Your task to perform on an android device: turn on airplane mode Image 0: 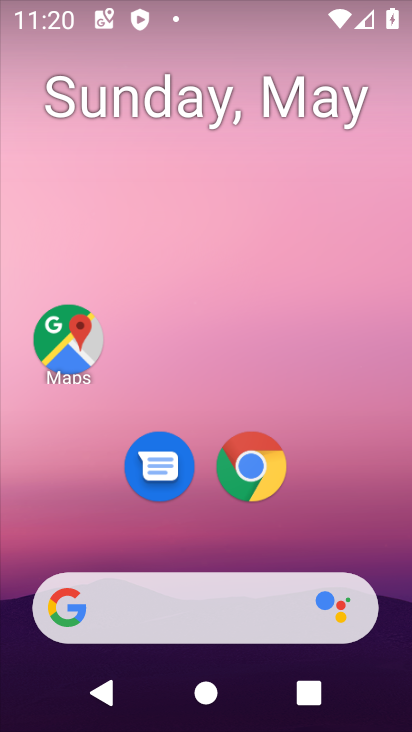
Step 0: drag from (398, 615) to (290, 34)
Your task to perform on an android device: turn on airplane mode Image 1: 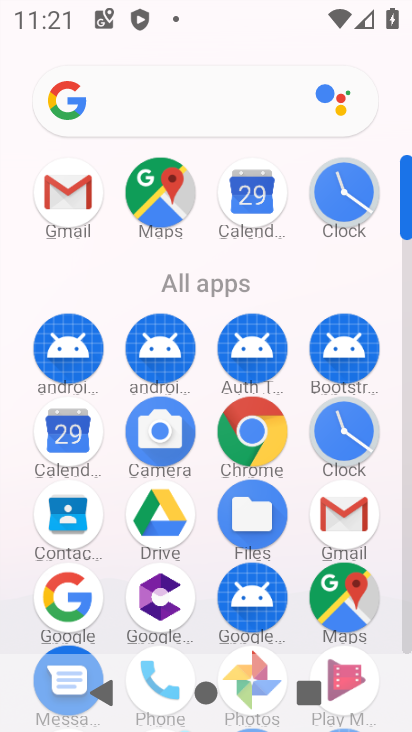
Step 1: drag from (262, 8) to (292, 612)
Your task to perform on an android device: turn on airplane mode Image 2: 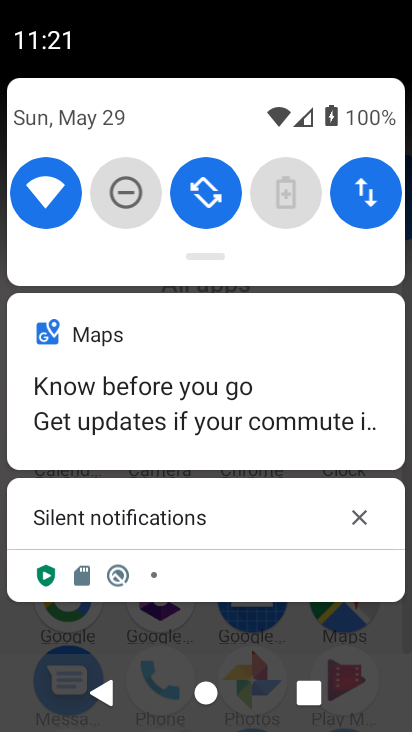
Step 2: drag from (343, 251) to (315, 722)
Your task to perform on an android device: turn on airplane mode Image 3: 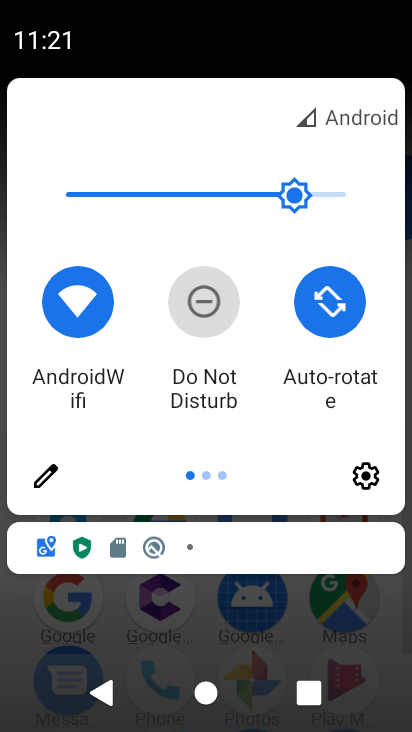
Step 3: drag from (380, 398) to (58, 399)
Your task to perform on an android device: turn on airplane mode Image 4: 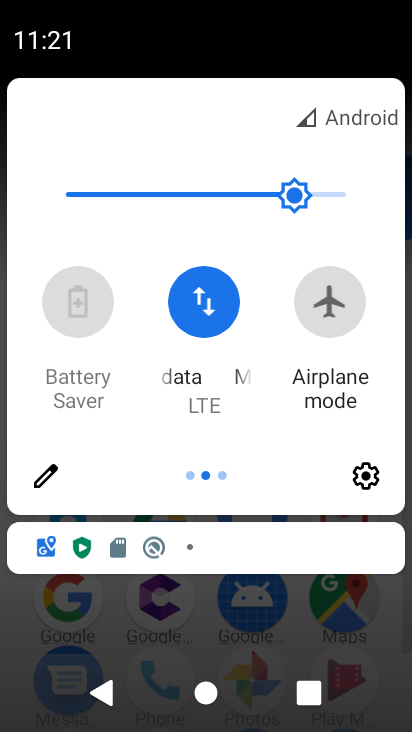
Step 4: click (322, 288)
Your task to perform on an android device: turn on airplane mode Image 5: 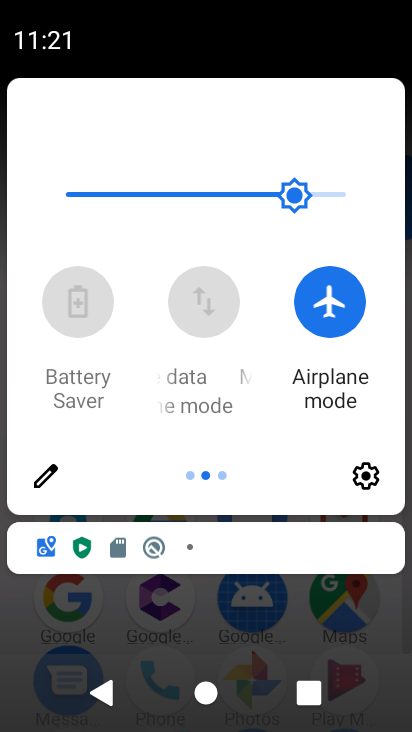
Step 5: task complete